Your task to perform on an android device: open app "Airtel Thanks" (install if not already installed) Image 0: 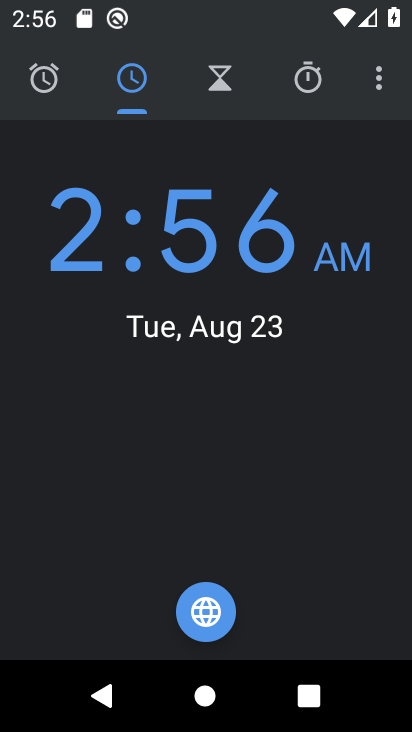
Step 0: press home button
Your task to perform on an android device: open app "Airtel Thanks" (install if not already installed) Image 1: 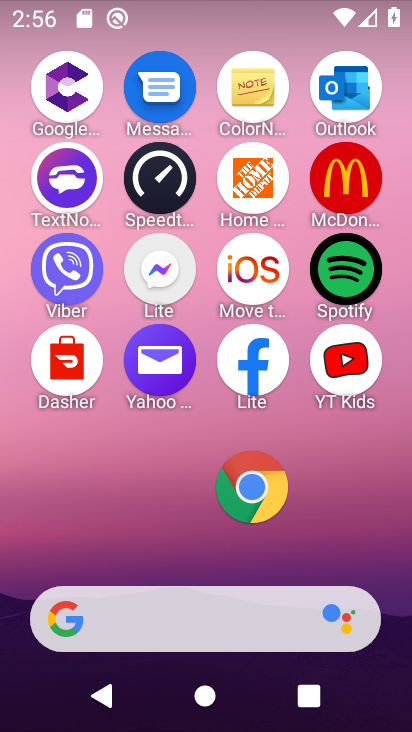
Step 1: drag from (182, 591) to (224, 3)
Your task to perform on an android device: open app "Airtel Thanks" (install if not already installed) Image 2: 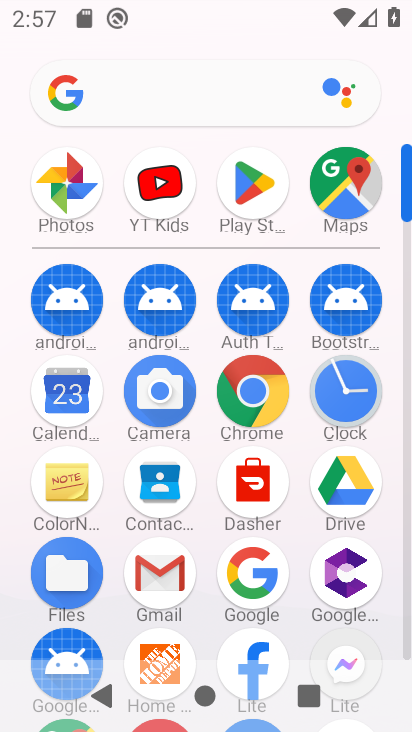
Step 2: click (265, 177)
Your task to perform on an android device: open app "Airtel Thanks" (install if not already installed) Image 3: 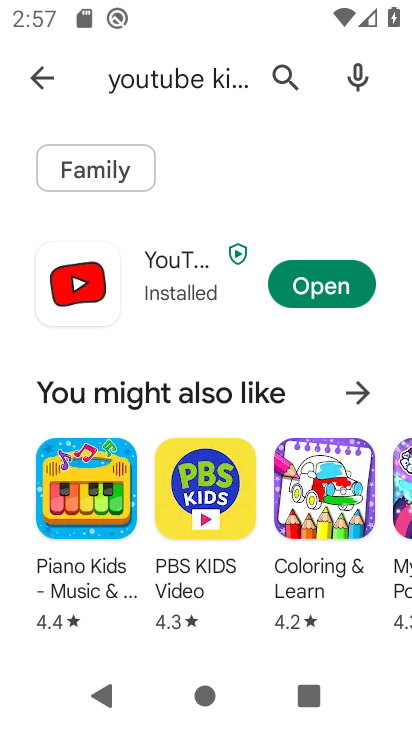
Step 3: click (30, 86)
Your task to perform on an android device: open app "Airtel Thanks" (install if not already installed) Image 4: 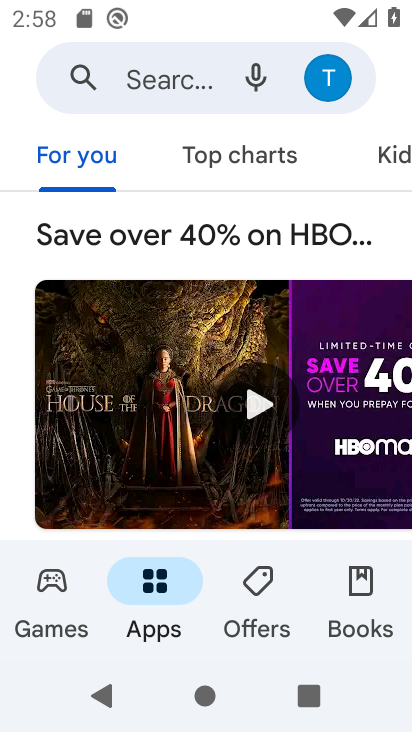
Step 4: click (163, 61)
Your task to perform on an android device: open app "Airtel Thanks" (install if not already installed) Image 5: 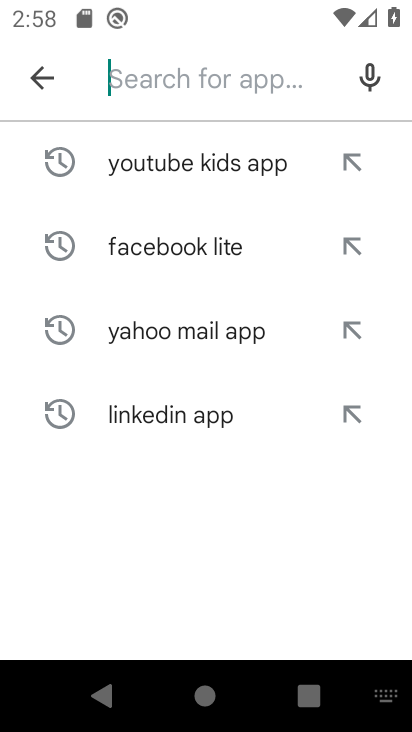
Step 5: type "Airtel Thank "
Your task to perform on an android device: open app "Airtel Thanks" (install if not already installed) Image 6: 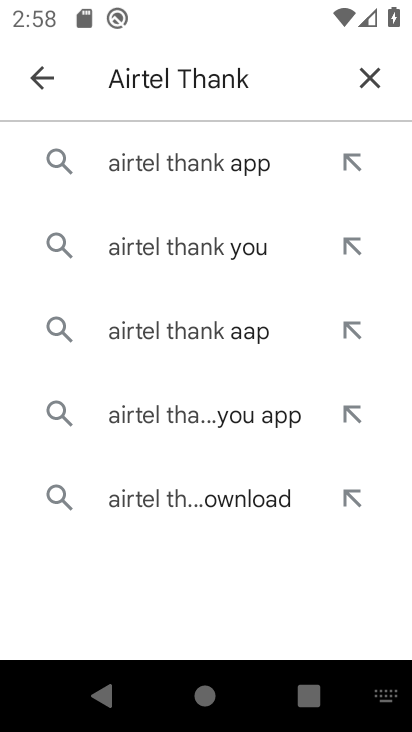
Step 6: click (195, 150)
Your task to perform on an android device: open app "Airtel Thanks" (install if not already installed) Image 7: 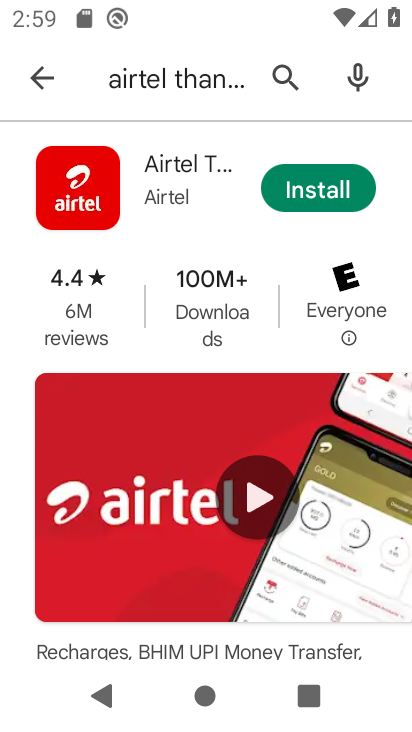
Step 7: click (315, 183)
Your task to perform on an android device: open app "Airtel Thanks" (install if not already installed) Image 8: 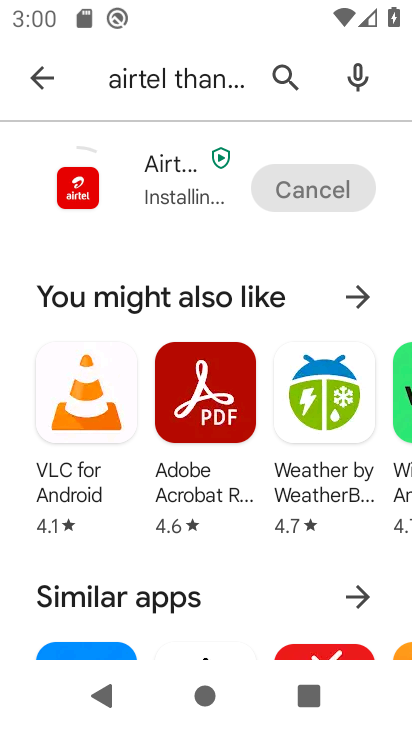
Step 8: task complete